Your task to perform on an android device: Open the Play Movies app and select the watchlist tab. Image 0: 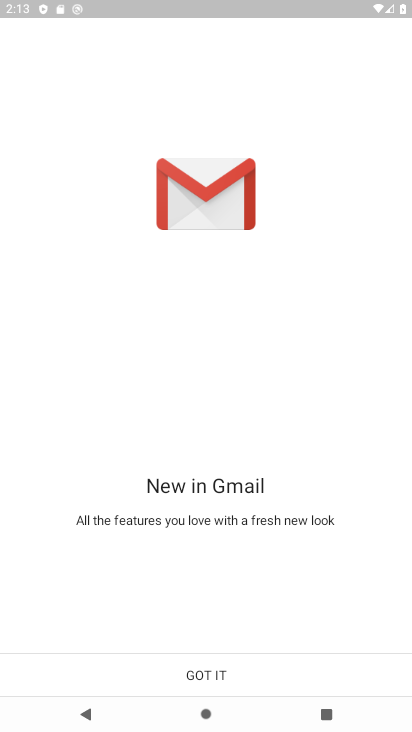
Step 0: press home button
Your task to perform on an android device: Open the Play Movies app and select the watchlist tab. Image 1: 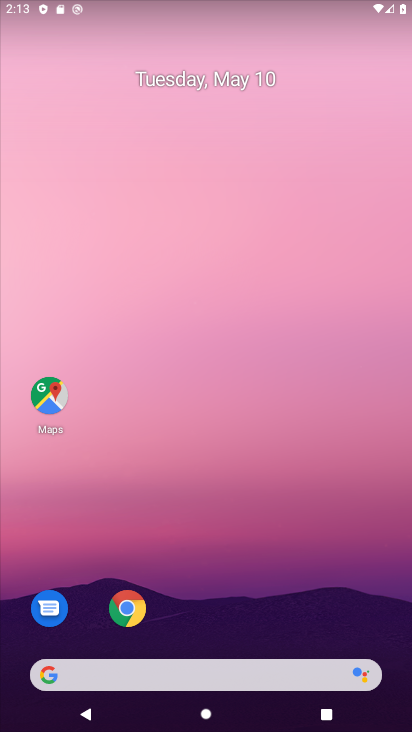
Step 1: drag from (335, 633) to (328, 4)
Your task to perform on an android device: Open the Play Movies app and select the watchlist tab. Image 2: 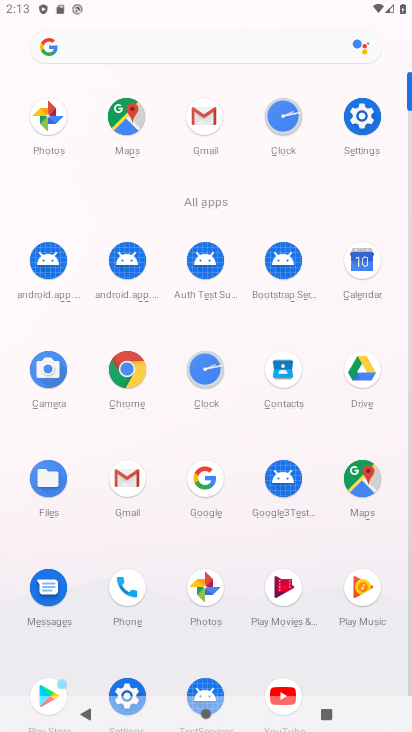
Step 2: click (282, 592)
Your task to perform on an android device: Open the Play Movies app and select the watchlist tab. Image 3: 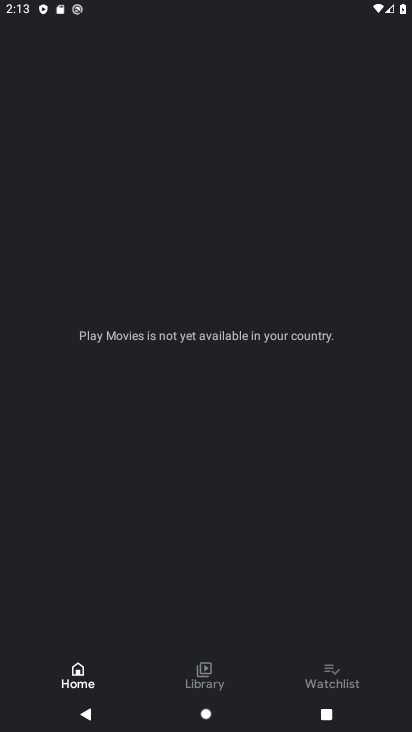
Step 3: click (329, 681)
Your task to perform on an android device: Open the Play Movies app and select the watchlist tab. Image 4: 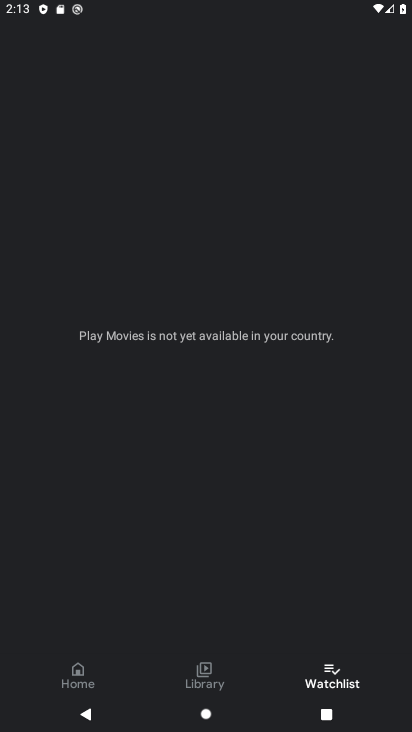
Step 4: task complete